Your task to perform on an android device: Go to display settings Image 0: 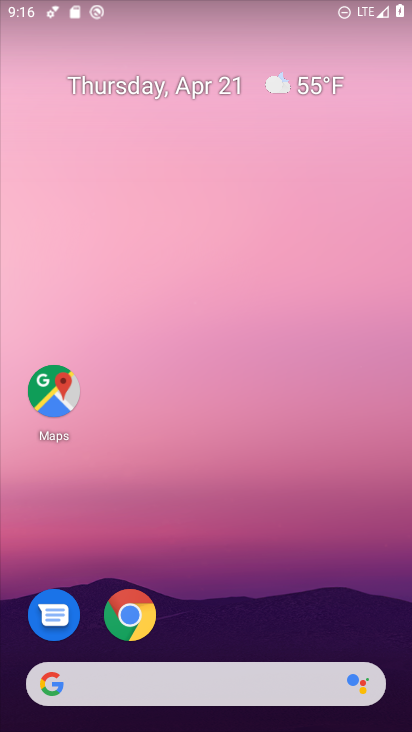
Step 0: drag from (288, 540) to (398, 55)
Your task to perform on an android device: Go to display settings Image 1: 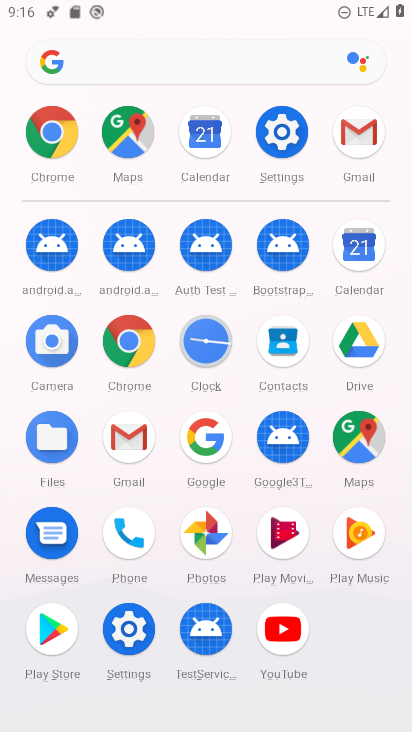
Step 1: click (222, 350)
Your task to perform on an android device: Go to display settings Image 2: 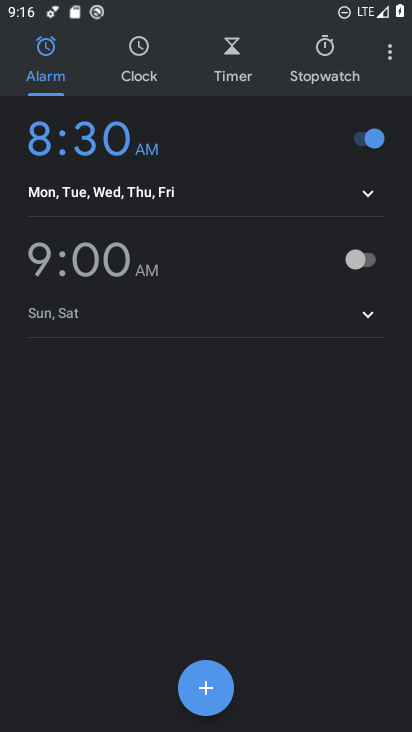
Step 2: press home button
Your task to perform on an android device: Go to display settings Image 3: 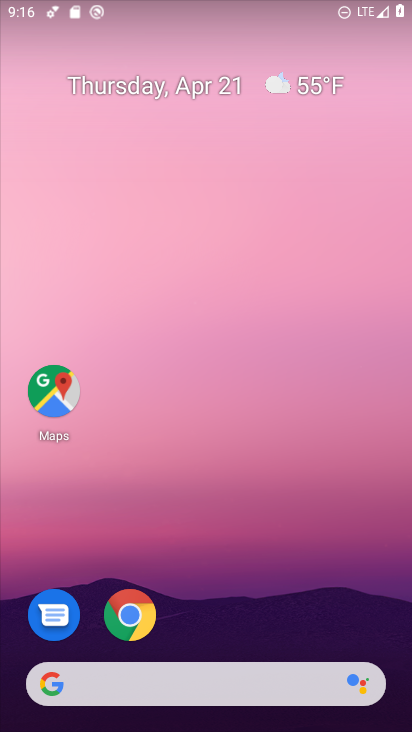
Step 3: drag from (279, 491) to (356, 2)
Your task to perform on an android device: Go to display settings Image 4: 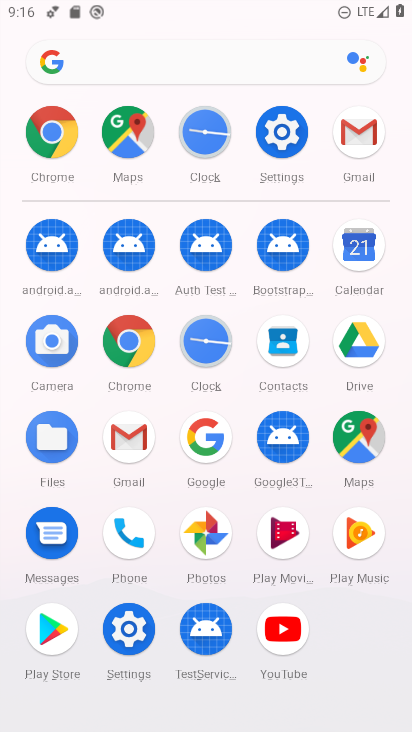
Step 4: click (284, 148)
Your task to perform on an android device: Go to display settings Image 5: 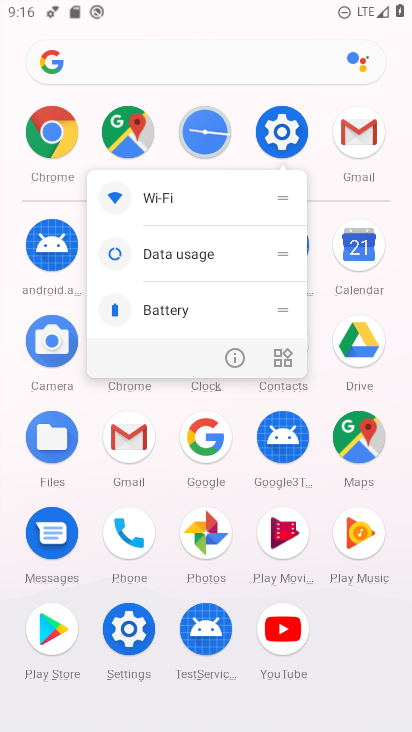
Step 5: click (284, 148)
Your task to perform on an android device: Go to display settings Image 6: 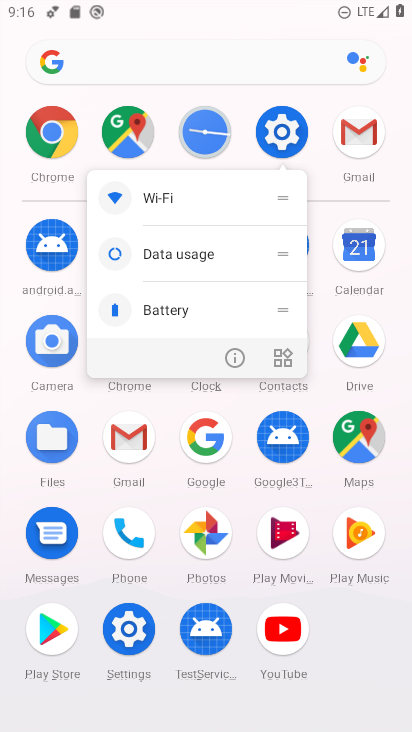
Step 6: click (276, 124)
Your task to perform on an android device: Go to display settings Image 7: 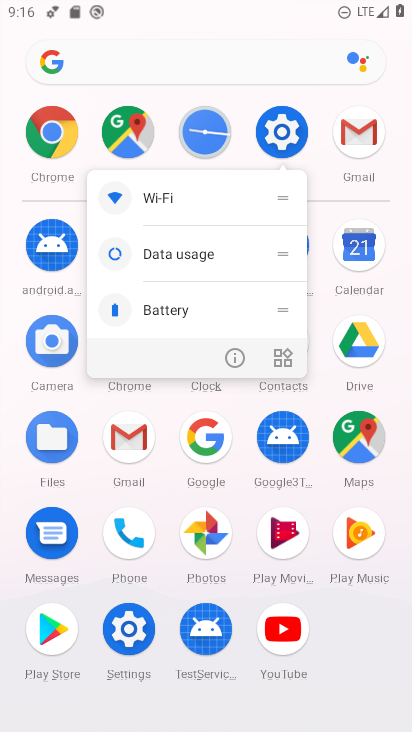
Step 7: click (276, 124)
Your task to perform on an android device: Go to display settings Image 8: 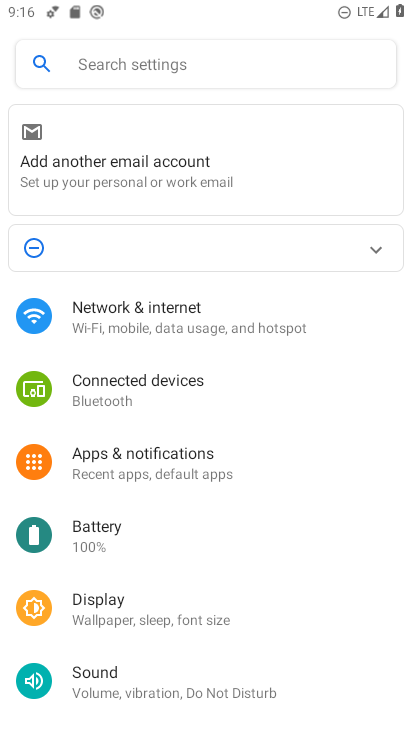
Step 8: drag from (194, 634) to (200, 343)
Your task to perform on an android device: Go to display settings Image 9: 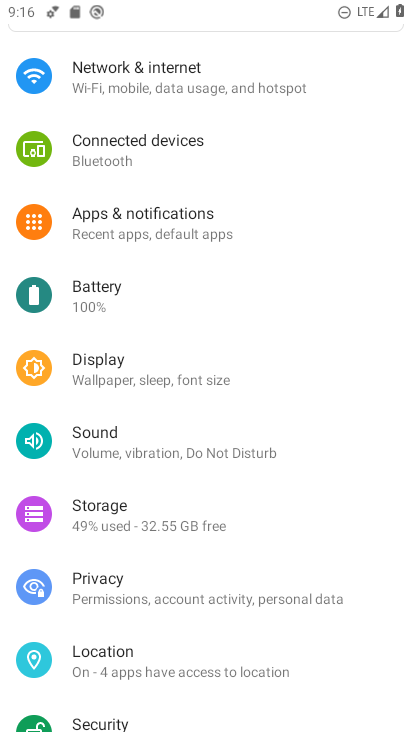
Step 9: click (68, 378)
Your task to perform on an android device: Go to display settings Image 10: 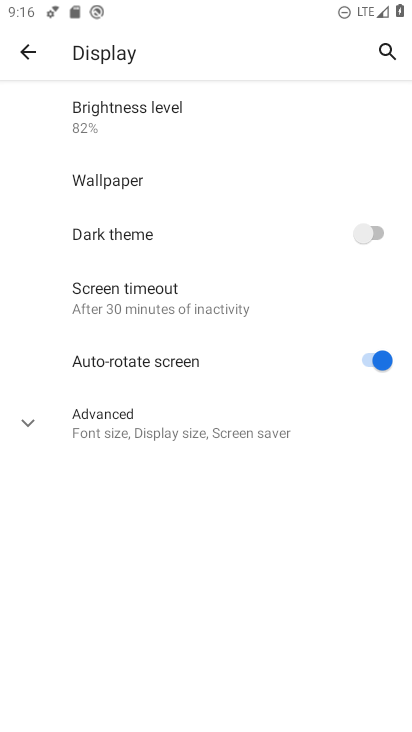
Step 10: task complete